Your task to perform on an android device: Clear all items from cart on walmart.com. Search for "jbl charge 4" on walmart.com, select the first entry, add it to the cart, then select checkout. Image 0: 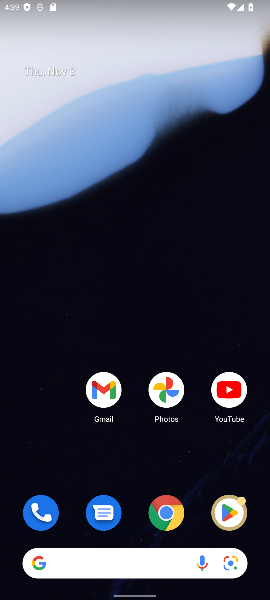
Step 0: click (165, 518)
Your task to perform on an android device: Clear all items from cart on walmart.com. Search for "jbl charge 4" on walmart.com, select the first entry, add it to the cart, then select checkout. Image 1: 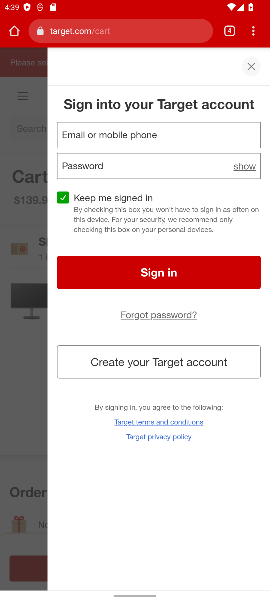
Step 1: click (229, 32)
Your task to perform on an android device: Clear all items from cart on walmart.com. Search for "jbl charge 4" on walmart.com, select the first entry, add it to the cart, then select checkout. Image 2: 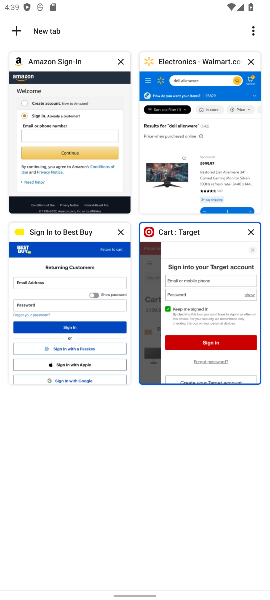
Step 2: click (211, 93)
Your task to perform on an android device: Clear all items from cart on walmart.com. Search for "jbl charge 4" on walmart.com, select the first entry, add it to the cart, then select checkout. Image 3: 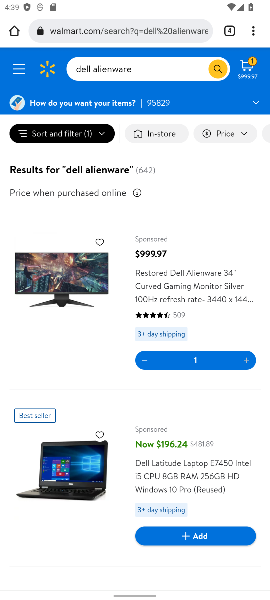
Step 3: click (117, 76)
Your task to perform on an android device: Clear all items from cart on walmart.com. Search for "jbl charge 4" on walmart.com, select the first entry, add it to the cart, then select checkout. Image 4: 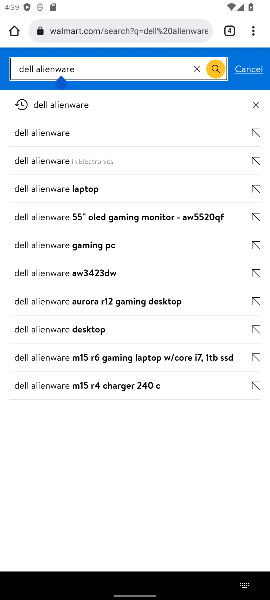
Step 4: click (197, 70)
Your task to perform on an android device: Clear all items from cart on walmart.com. Search for "jbl charge 4" on walmart.com, select the first entry, add it to the cart, then select checkout. Image 5: 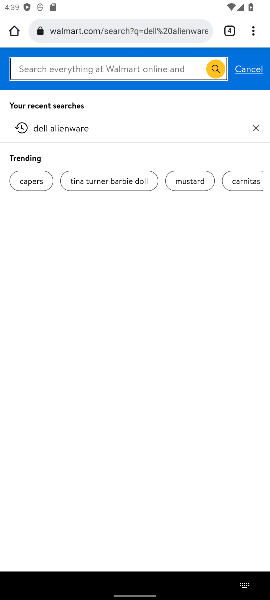
Step 5: type "jbl charge 4"
Your task to perform on an android device: Clear all items from cart on walmart.com. Search for "jbl charge 4" on walmart.com, select the first entry, add it to the cart, then select checkout. Image 6: 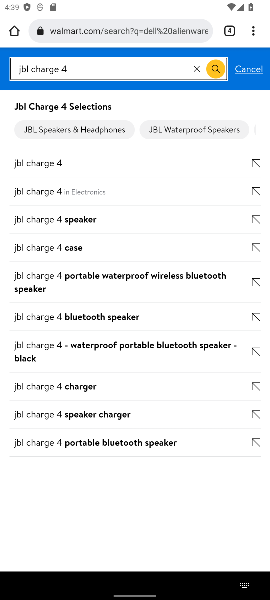
Step 6: click (38, 189)
Your task to perform on an android device: Clear all items from cart on walmart.com. Search for "jbl charge 4" on walmart.com, select the first entry, add it to the cart, then select checkout. Image 7: 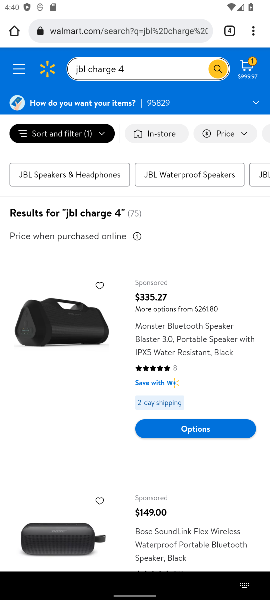
Step 7: drag from (195, 527) to (236, 342)
Your task to perform on an android device: Clear all items from cart on walmart.com. Search for "jbl charge 4" on walmart.com, select the first entry, add it to the cart, then select checkout. Image 8: 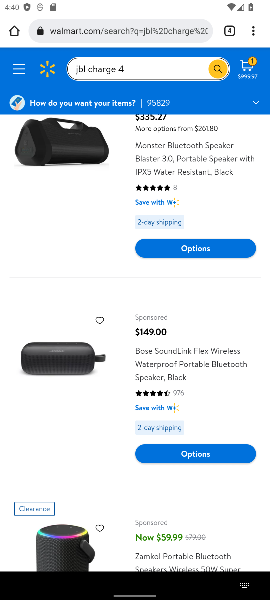
Step 8: click (223, 351)
Your task to perform on an android device: Clear all items from cart on walmart.com. Search for "jbl charge 4" on walmart.com, select the first entry, add it to the cart, then select checkout. Image 9: 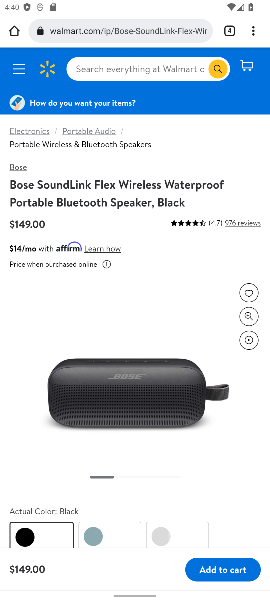
Step 9: click (224, 574)
Your task to perform on an android device: Clear all items from cart on walmart.com. Search for "jbl charge 4" on walmart.com, select the first entry, add it to the cart, then select checkout. Image 10: 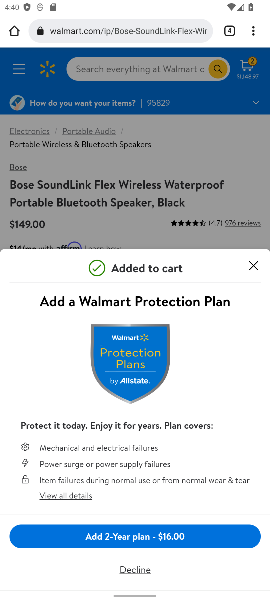
Step 10: task complete